Your task to perform on an android device: delete location history Image 0: 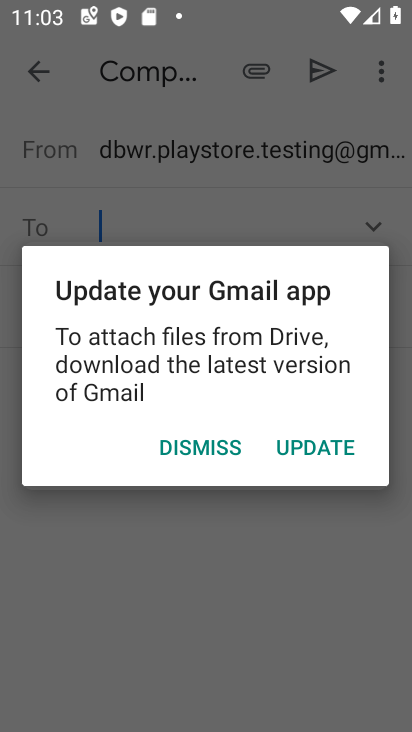
Step 0: press home button
Your task to perform on an android device: delete location history Image 1: 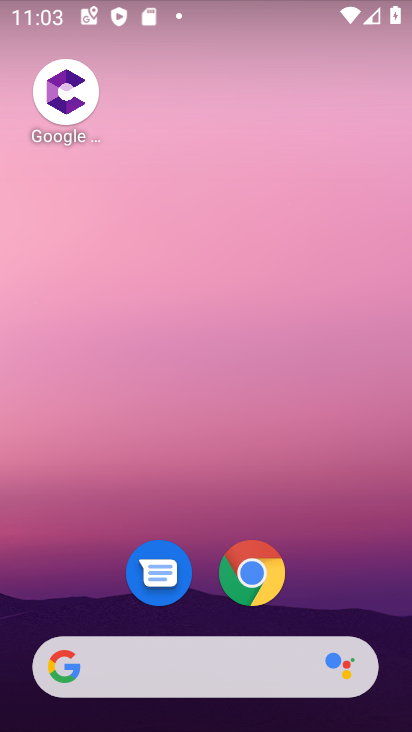
Step 1: drag from (340, 563) to (331, 101)
Your task to perform on an android device: delete location history Image 2: 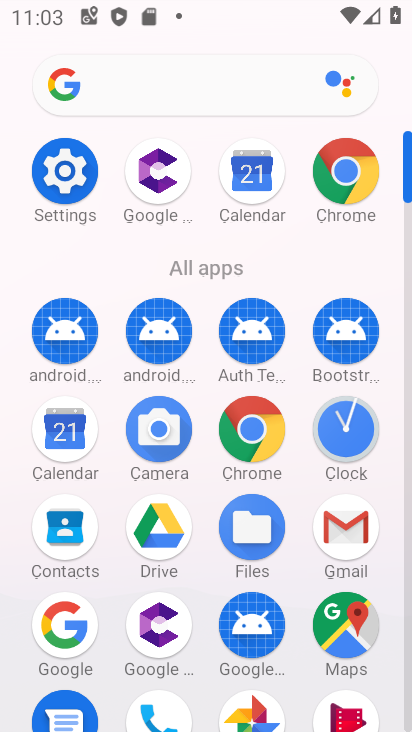
Step 2: drag from (305, 195) to (305, 30)
Your task to perform on an android device: delete location history Image 3: 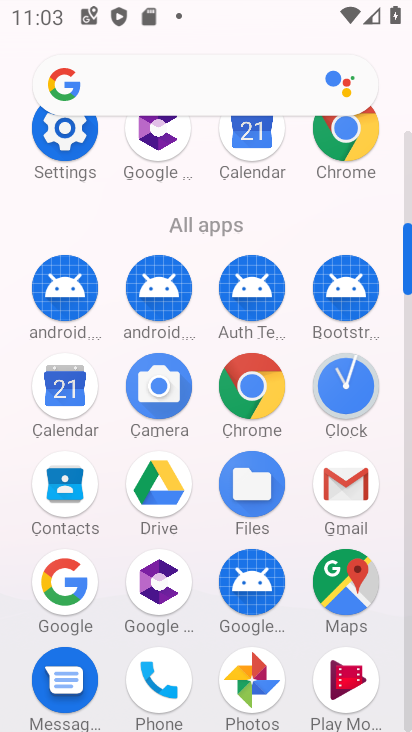
Step 3: click (345, 582)
Your task to perform on an android device: delete location history Image 4: 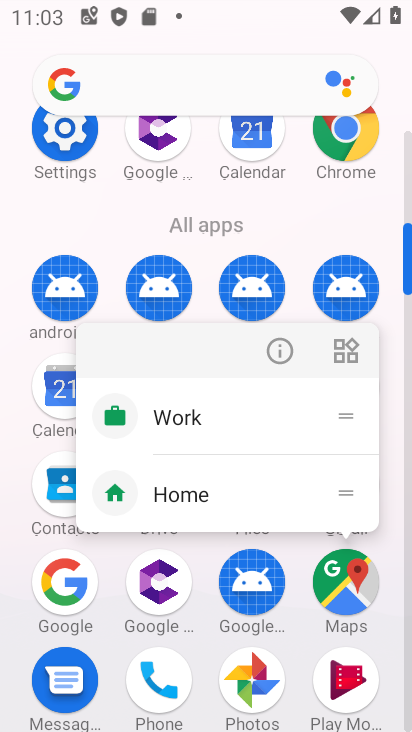
Step 4: click (344, 584)
Your task to perform on an android device: delete location history Image 5: 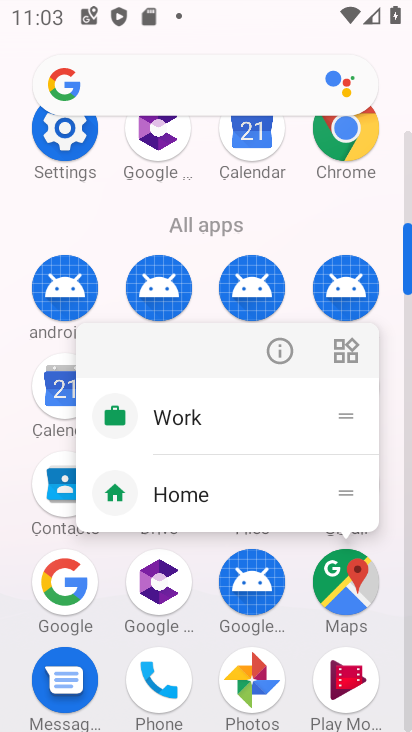
Step 5: click (350, 589)
Your task to perform on an android device: delete location history Image 6: 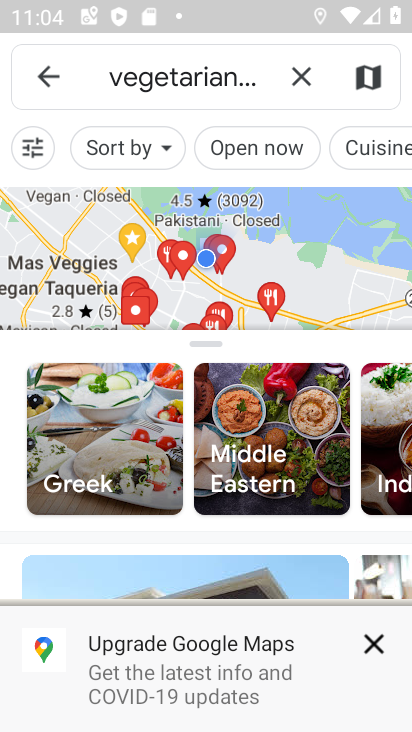
Step 6: click (378, 650)
Your task to perform on an android device: delete location history Image 7: 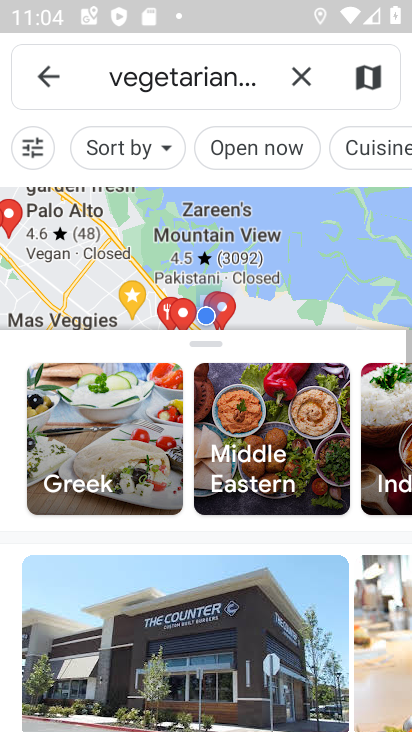
Step 7: click (51, 78)
Your task to perform on an android device: delete location history Image 8: 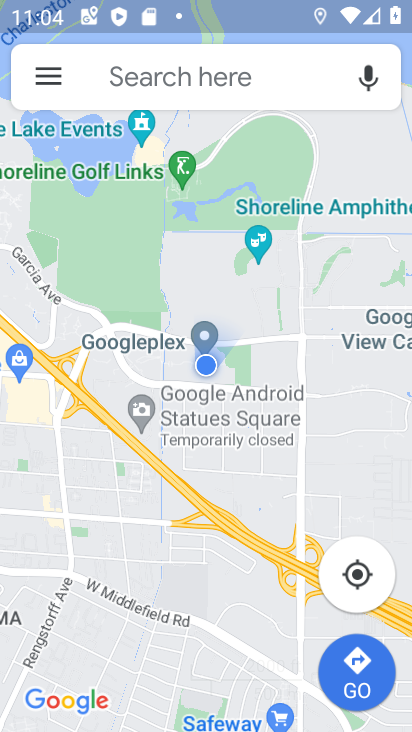
Step 8: click (59, 81)
Your task to perform on an android device: delete location history Image 9: 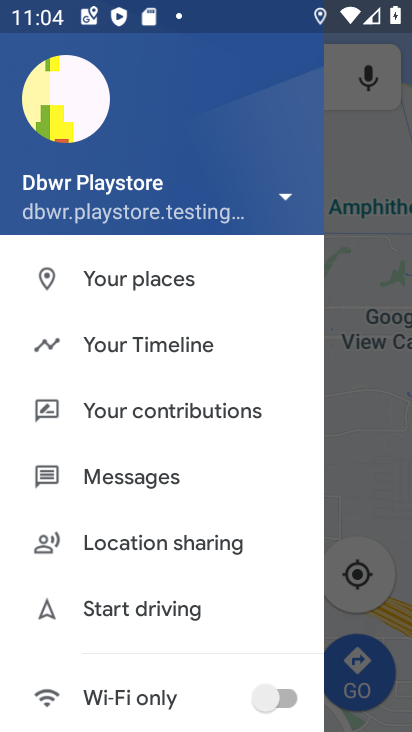
Step 9: click (206, 355)
Your task to perform on an android device: delete location history Image 10: 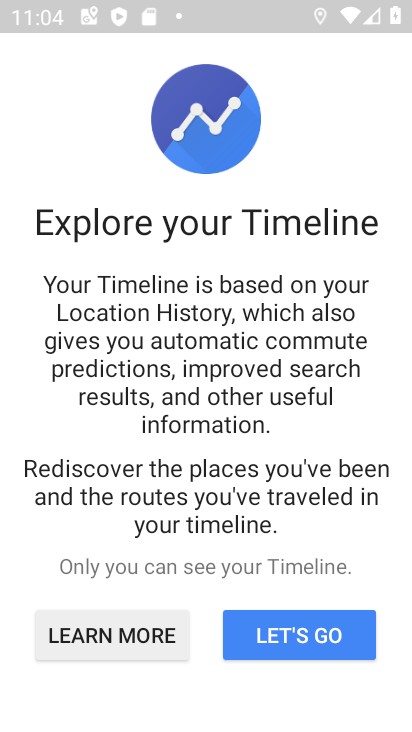
Step 10: click (322, 636)
Your task to perform on an android device: delete location history Image 11: 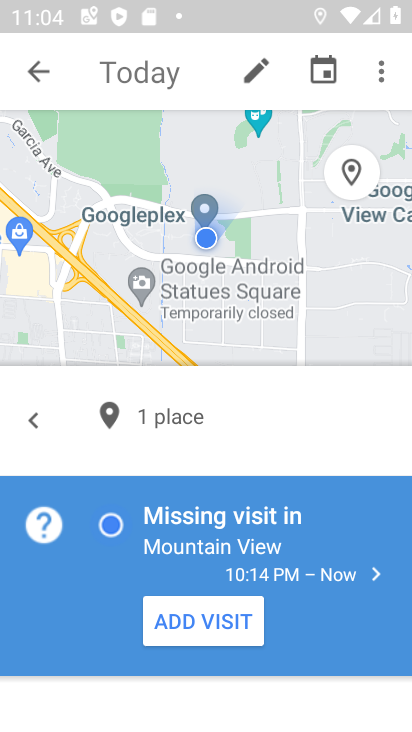
Step 11: click (383, 66)
Your task to perform on an android device: delete location history Image 12: 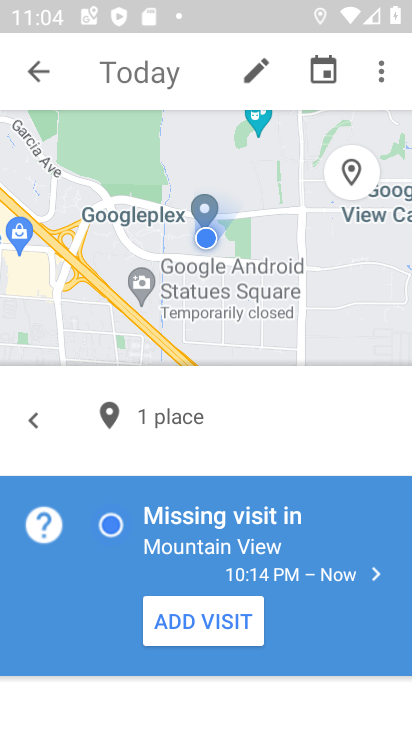
Step 12: click (383, 66)
Your task to perform on an android device: delete location history Image 13: 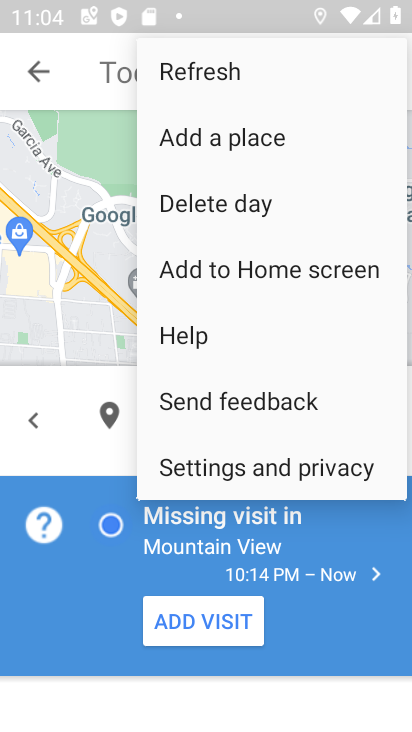
Step 13: click (339, 461)
Your task to perform on an android device: delete location history Image 14: 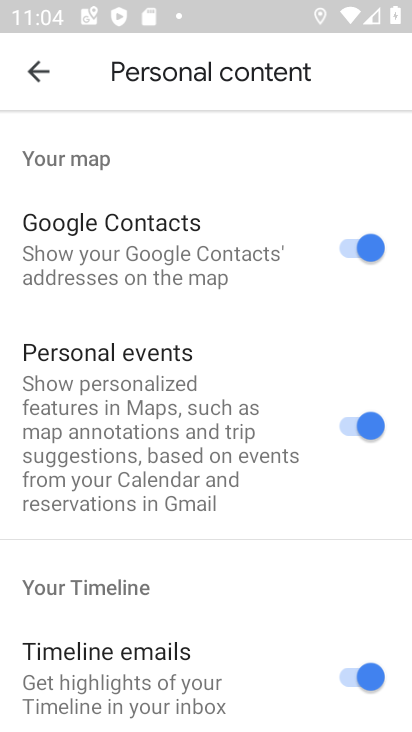
Step 14: drag from (291, 655) to (279, 181)
Your task to perform on an android device: delete location history Image 15: 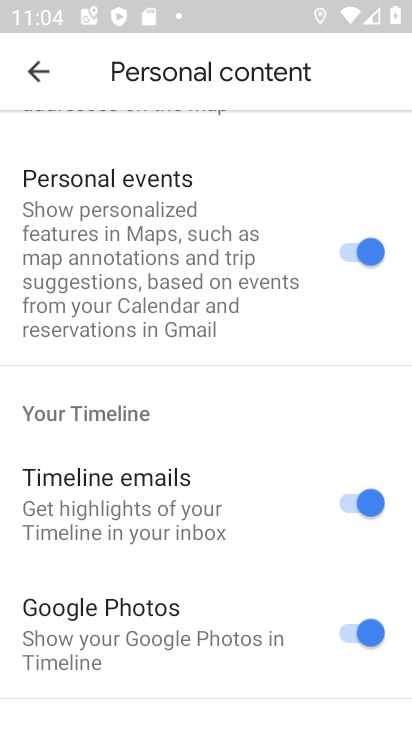
Step 15: drag from (279, 544) to (302, 234)
Your task to perform on an android device: delete location history Image 16: 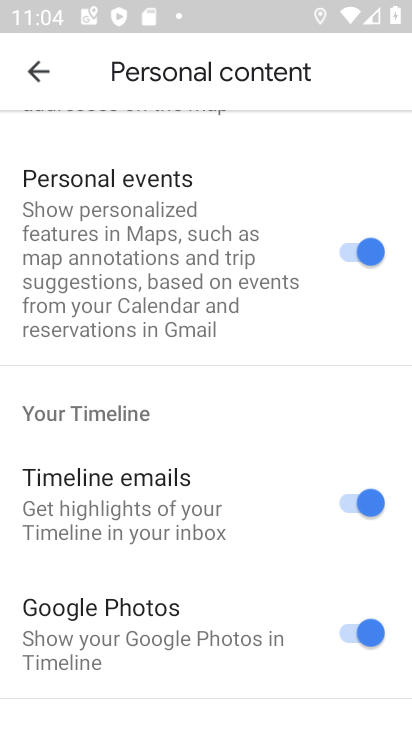
Step 16: drag from (271, 197) to (273, 639)
Your task to perform on an android device: delete location history Image 17: 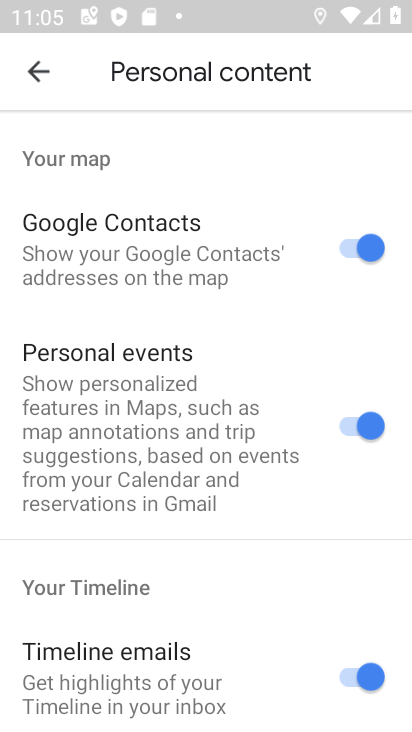
Step 17: drag from (241, 221) to (225, 615)
Your task to perform on an android device: delete location history Image 18: 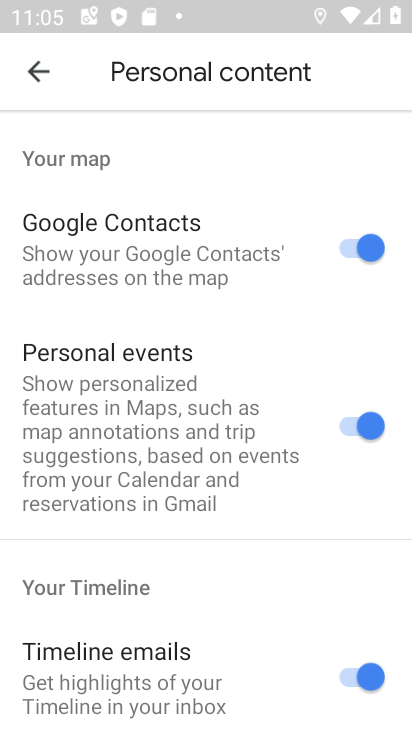
Step 18: click (40, 66)
Your task to perform on an android device: delete location history Image 19: 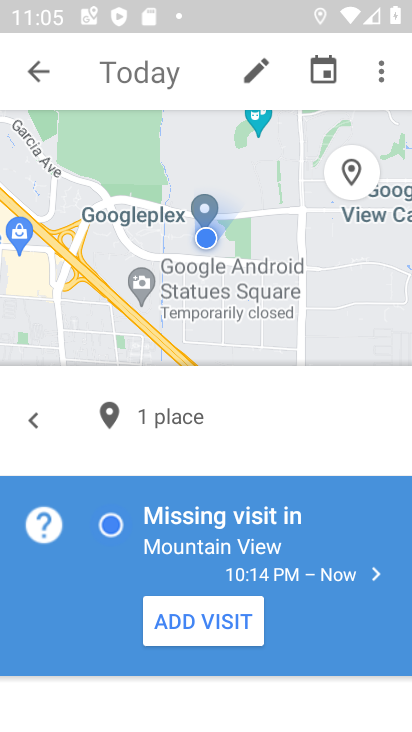
Step 19: click (378, 67)
Your task to perform on an android device: delete location history Image 20: 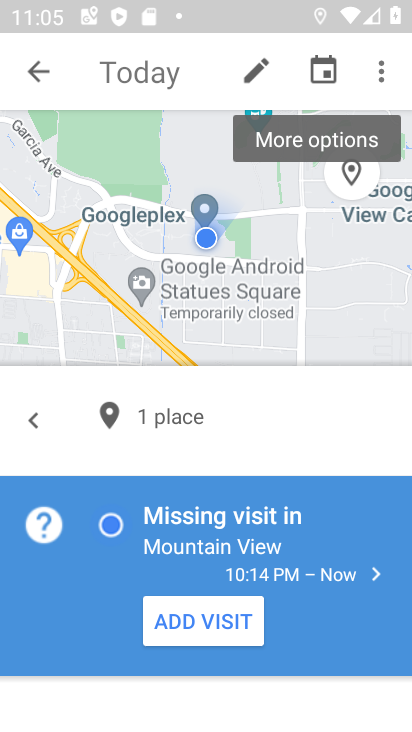
Step 20: click (378, 67)
Your task to perform on an android device: delete location history Image 21: 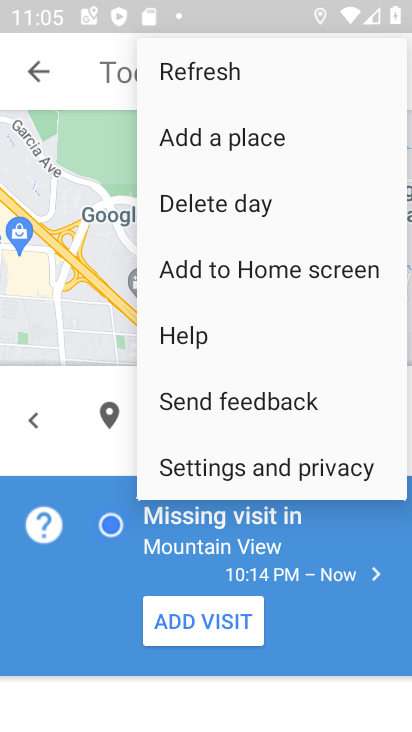
Step 21: click (289, 464)
Your task to perform on an android device: delete location history Image 22: 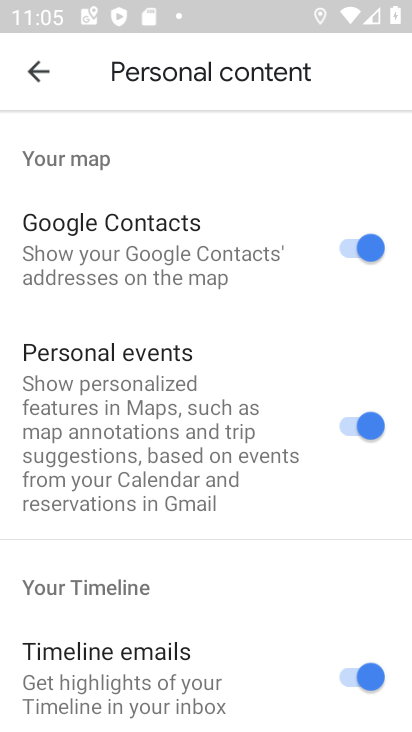
Step 22: drag from (280, 646) to (269, 177)
Your task to perform on an android device: delete location history Image 23: 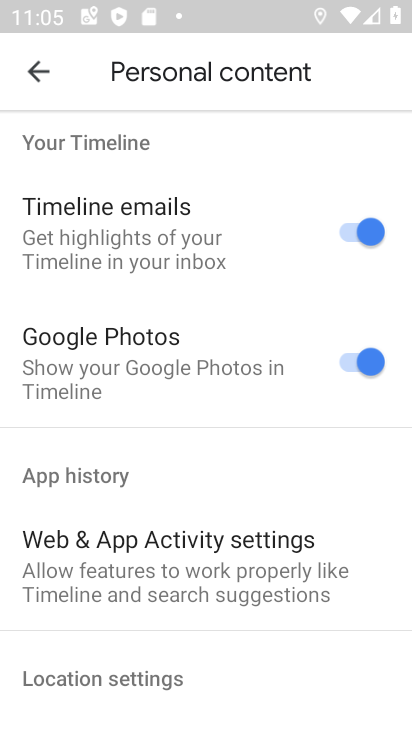
Step 23: drag from (231, 644) to (308, 157)
Your task to perform on an android device: delete location history Image 24: 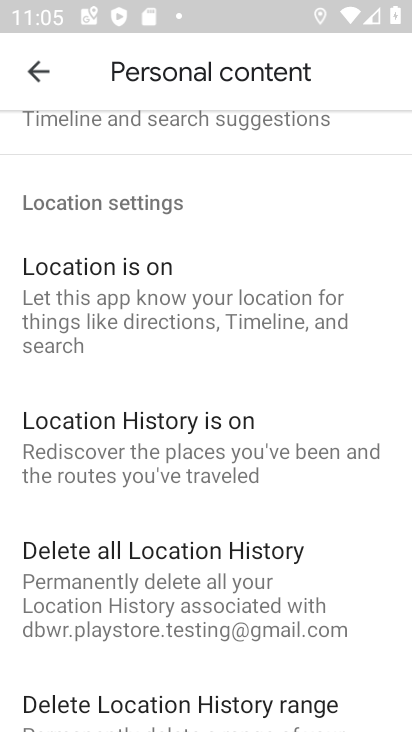
Step 24: click (217, 579)
Your task to perform on an android device: delete location history Image 25: 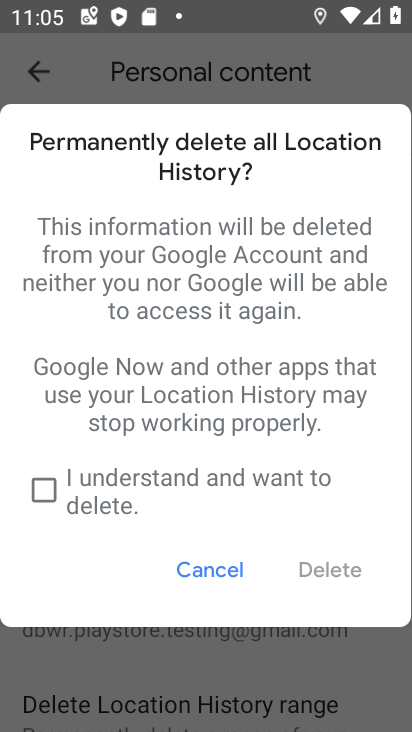
Step 25: click (43, 490)
Your task to perform on an android device: delete location history Image 26: 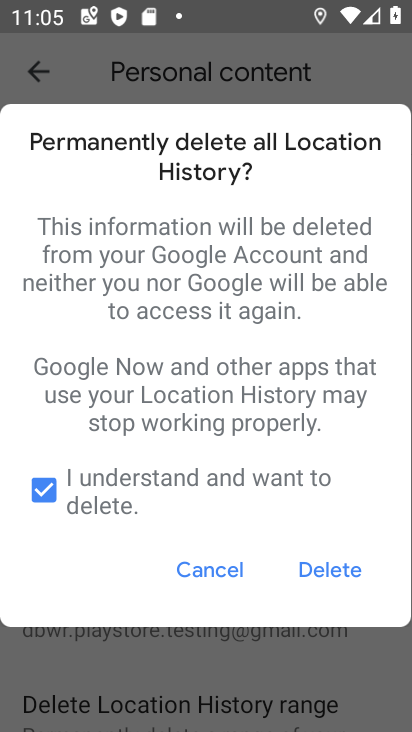
Step 26: click (354, 564)
Your task to perform on an android device: delete location history Image 27: 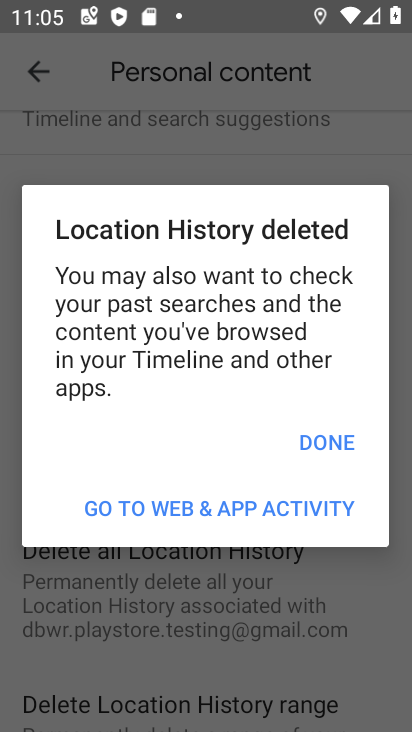
Step 27: click (350, 437)
Your task to perform on an android device: delete location history Image 28: 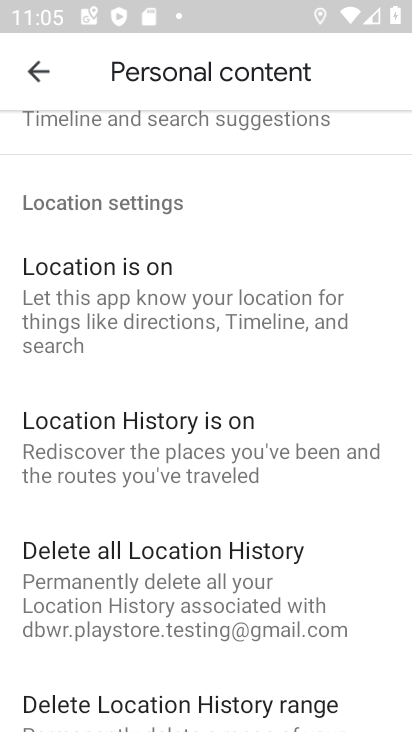
Step 28: task complete